Your task to perform on an android device: Open Android settings Image 0: 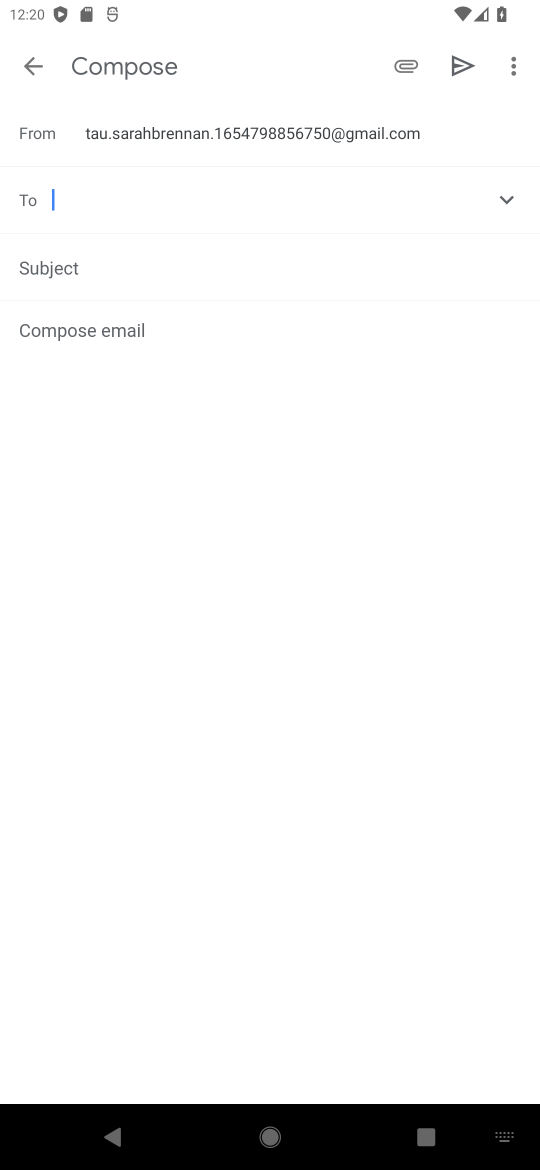
Step 0: press home button
Your task to perform on an android device: Open Android settings Image 1: 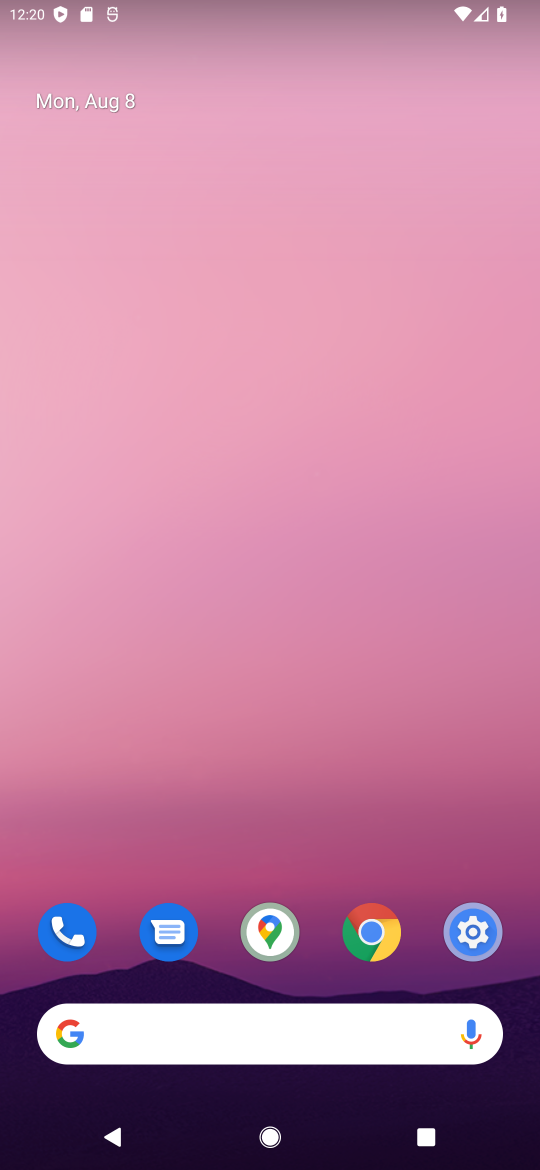
Step 1: click (457, 947)
Your task to perform on an android device: Open Android settings Image 2: 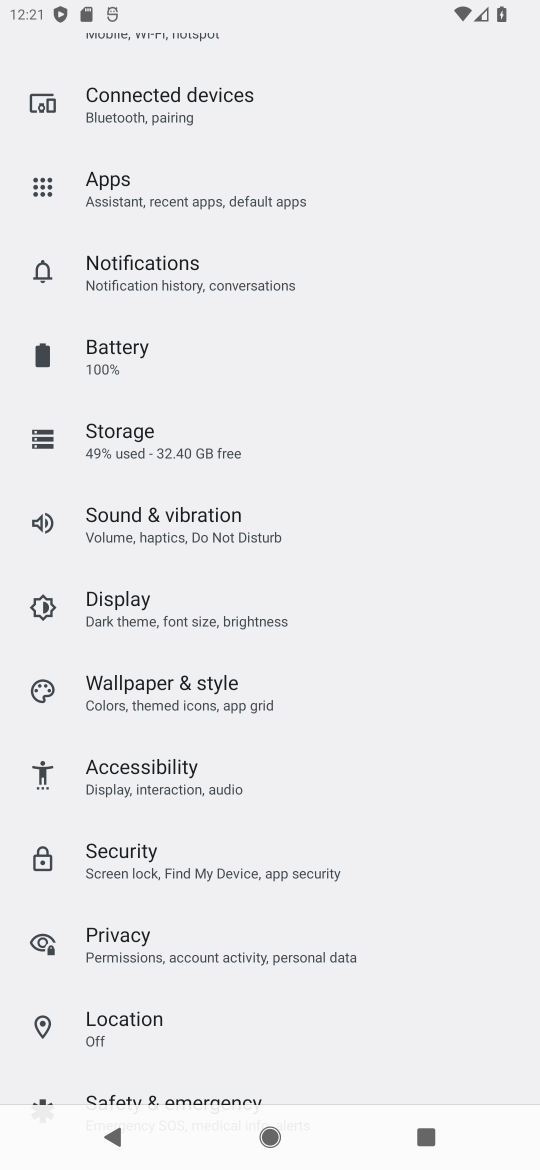
Step 2: task complete